Your task to perform on an android device: change timer sound Image 0: 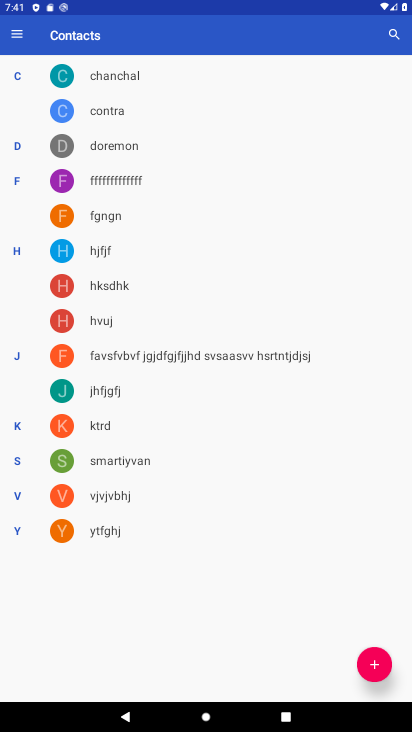
Step 0: press home button
Your task to perform on an android device: change timer sound Image 1: 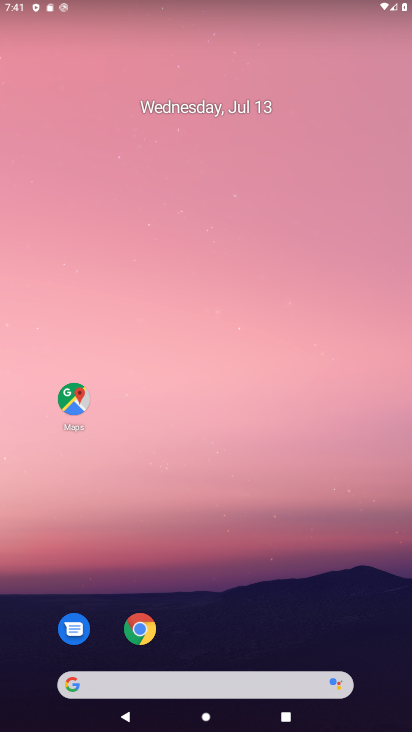
Step 1: drag from (344, 572) to (397, 14)
Your task to perform on an android device: change timer sound Image 2: 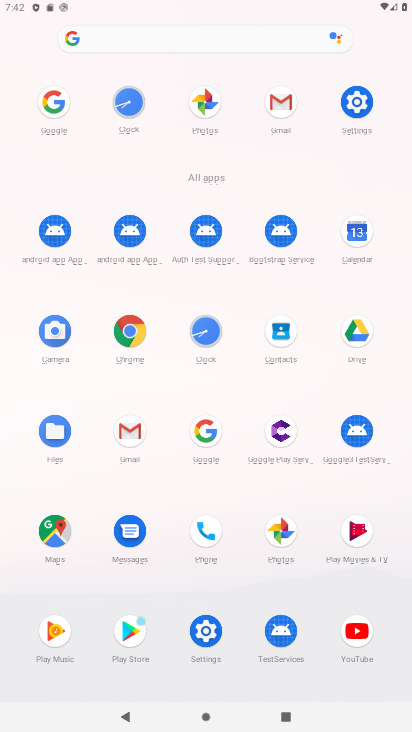
Step 2: click (208, 330)
Your task to perform on an android device: change timer sound Image 3: 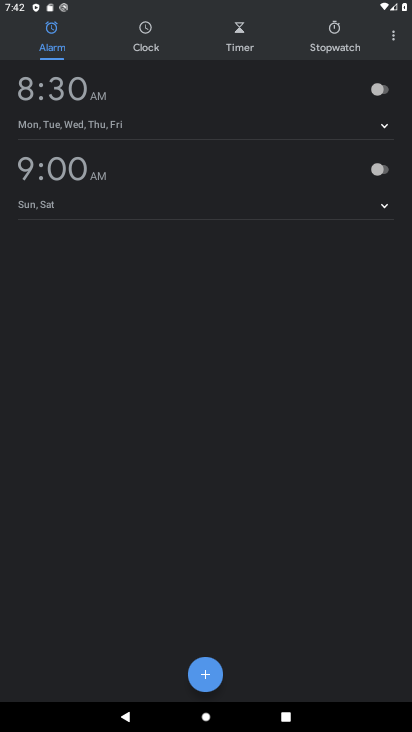
Step 3: click (402, 35)
Your task to perform on an android device: change timer sound Image 4: 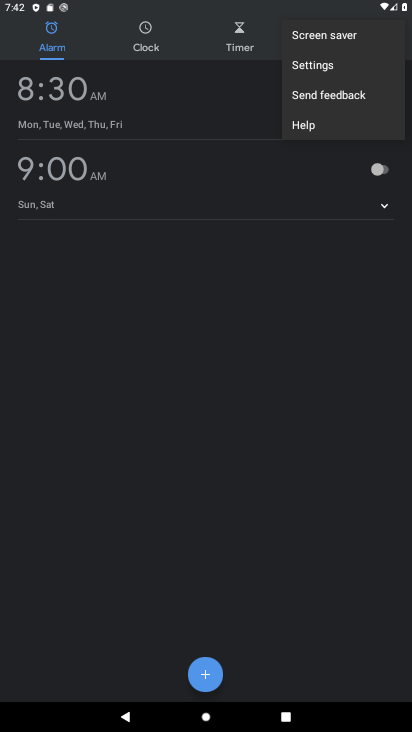
Step 4: click (307, 71)
Your task to perform on an android device: change timer sound Image 5: 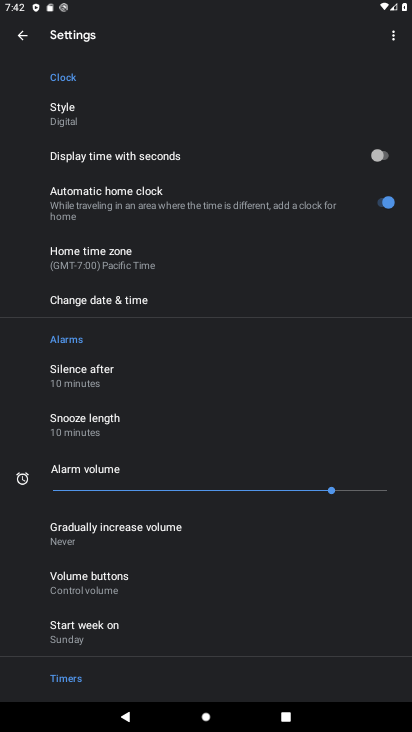
Step 5: drag from (194, 601) to (182, 290)
Your task to perform on an android device: change timer sound Image 6: 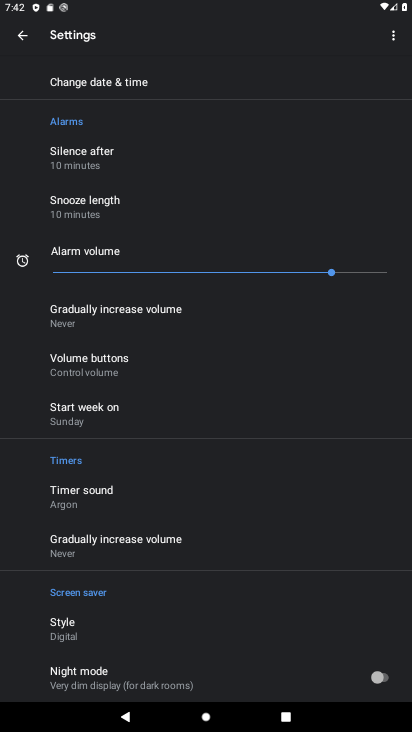
Step 6: click (73, 488)
Your task to perform on an android device: change timer sound Image 7: 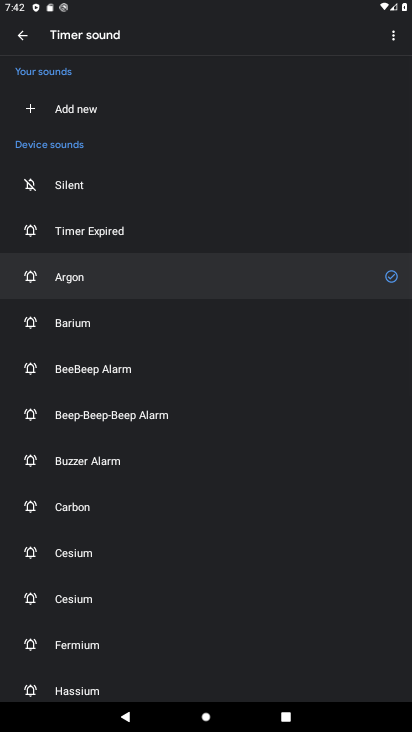
Step 7: click (74, 327)
Your task to perform on an android device: change timer sound Image 8: 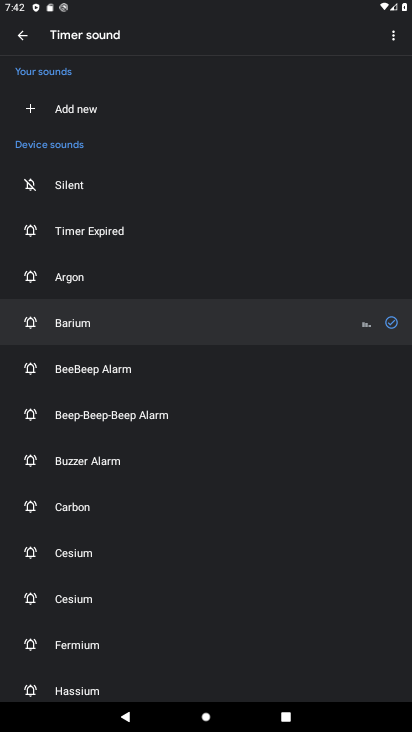
Step 8: task complete